Your task to perform on an android device: delete browsing data in the chrome app Image 0: 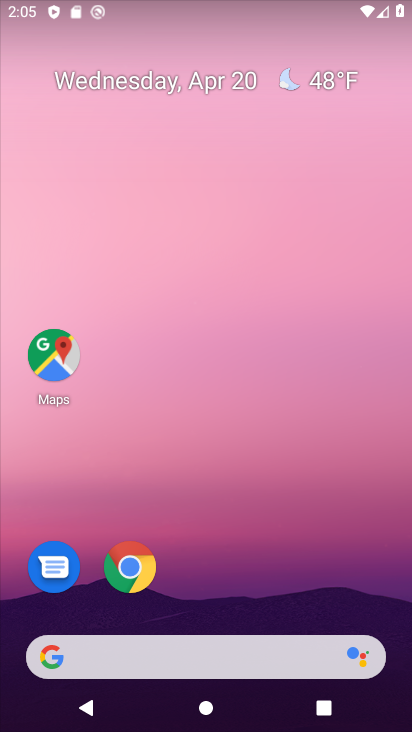
Step 0: drag from (289, 551) to (243, 86)
Your task to perform on an android device: delete browsing data in the chrome app Image 1: 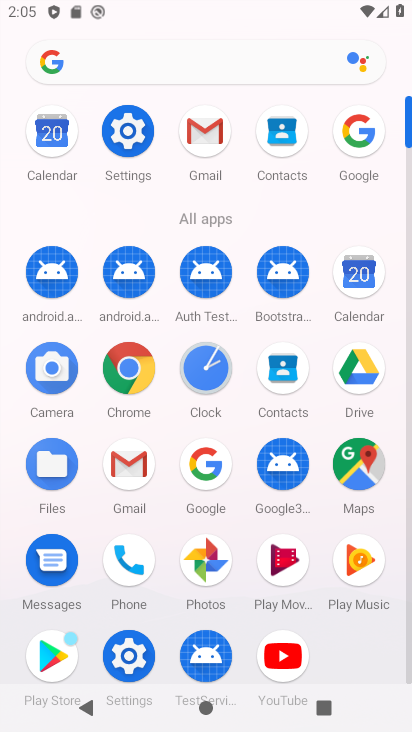
Step 1: click (132, 368)
Your task to perform on an android device: delete browsing data in the chrome app Image 2: 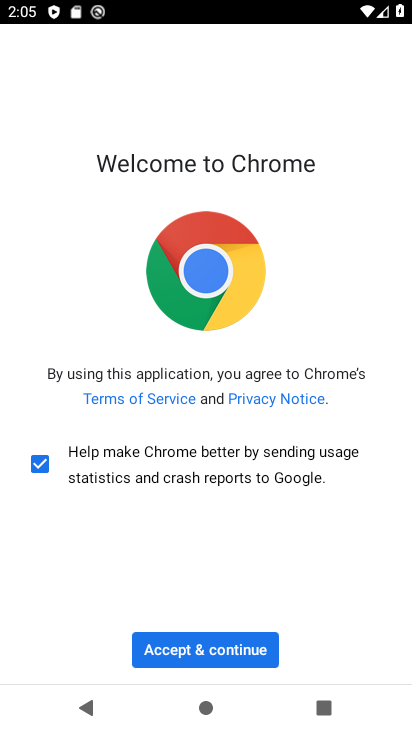
Step 2: click (192, 647)
Your task to perform on an android device: delete browsing data in the chrome app Image 3: 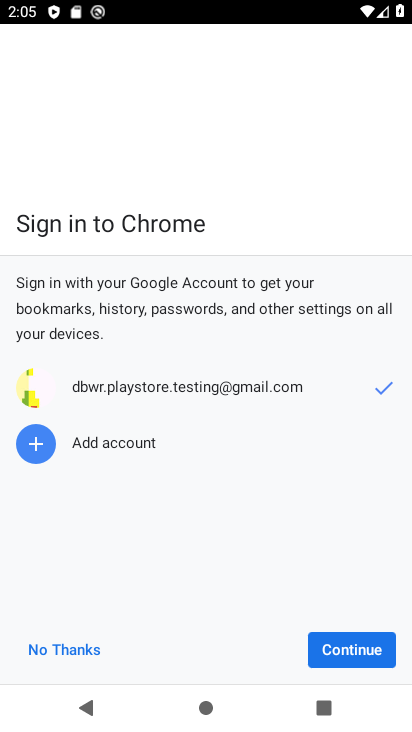
Step 3: click (368, 647)
Your task to perform on an android device: delete browsing data in the chrome app Image 4: 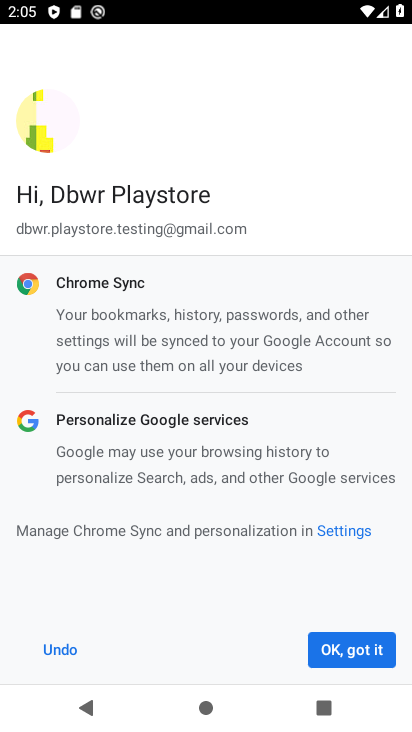
Step 4: click (367, 646)
Your task to perform on an android device: delete browsing data in the chrome app Image 5: 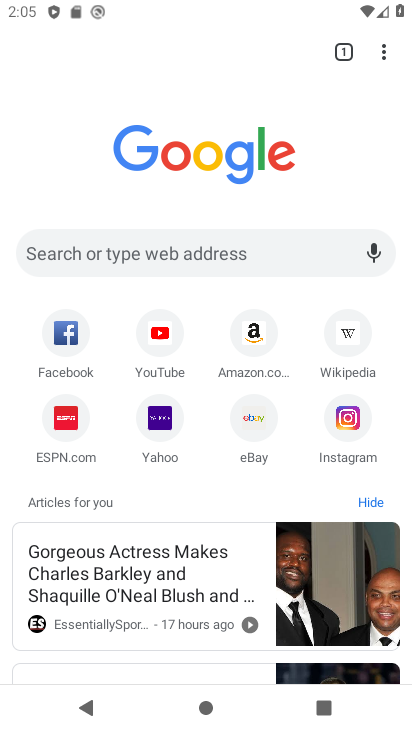
Step 5: click (384, 48)
Your task to perform on an android device: delete browsing data in the chrome app Image 6: 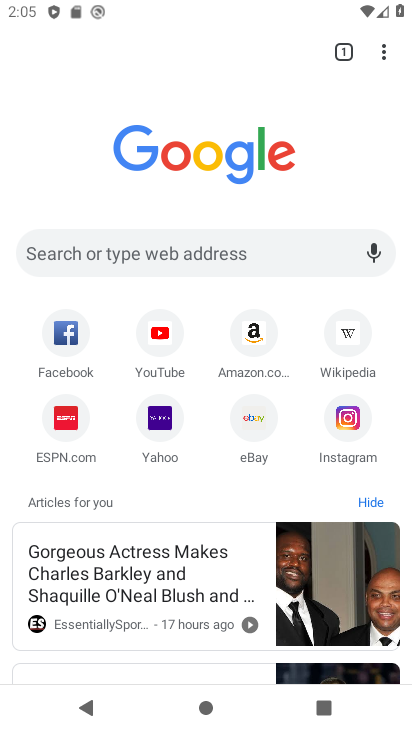
Step 6: click (382, 46)
Your task to perform on an android device: delete browsing data in the chrome app Image 7: 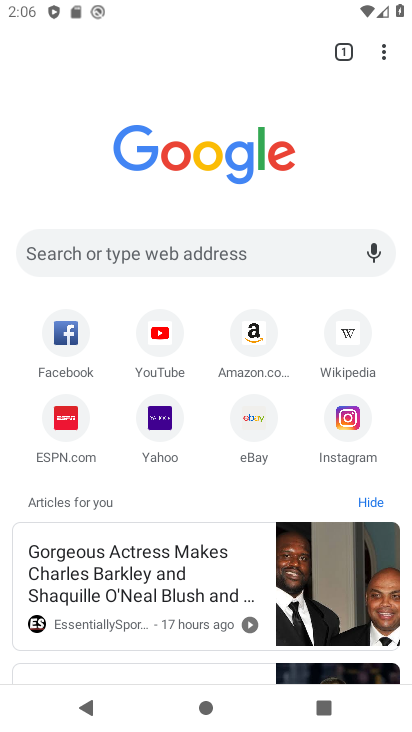
Step 7: click (388, 54)
Your task to perform on an android device: delete browsing data in the chrome app Image 8: 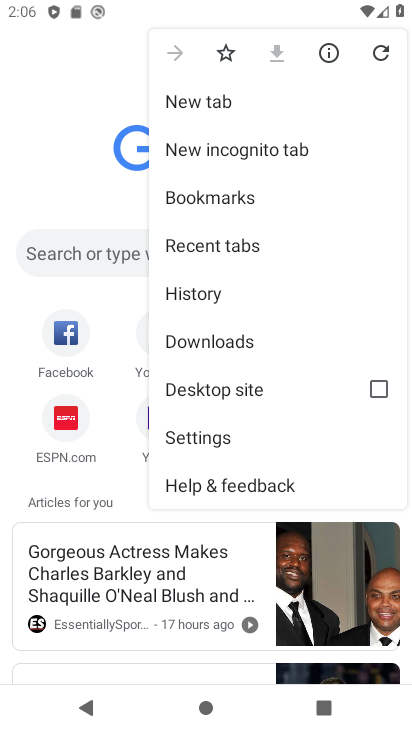
Step 8: click (211, 295)
Your task to perform on an android device: delete browsing data in the chrome app Image 9: 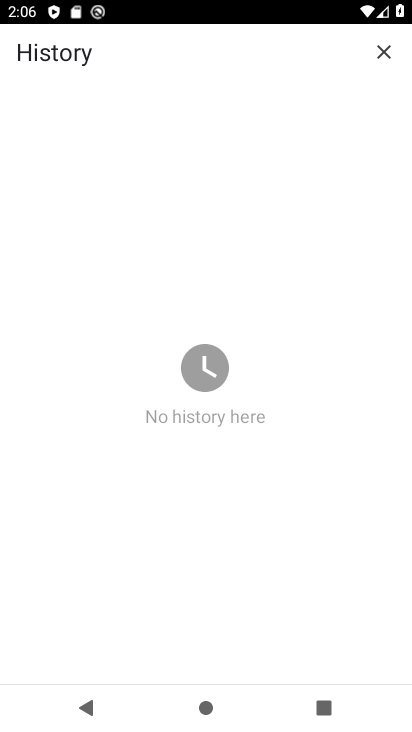
Step 9: task complete